Your task to perform on an android device: open app "PlayWell" Image 0: 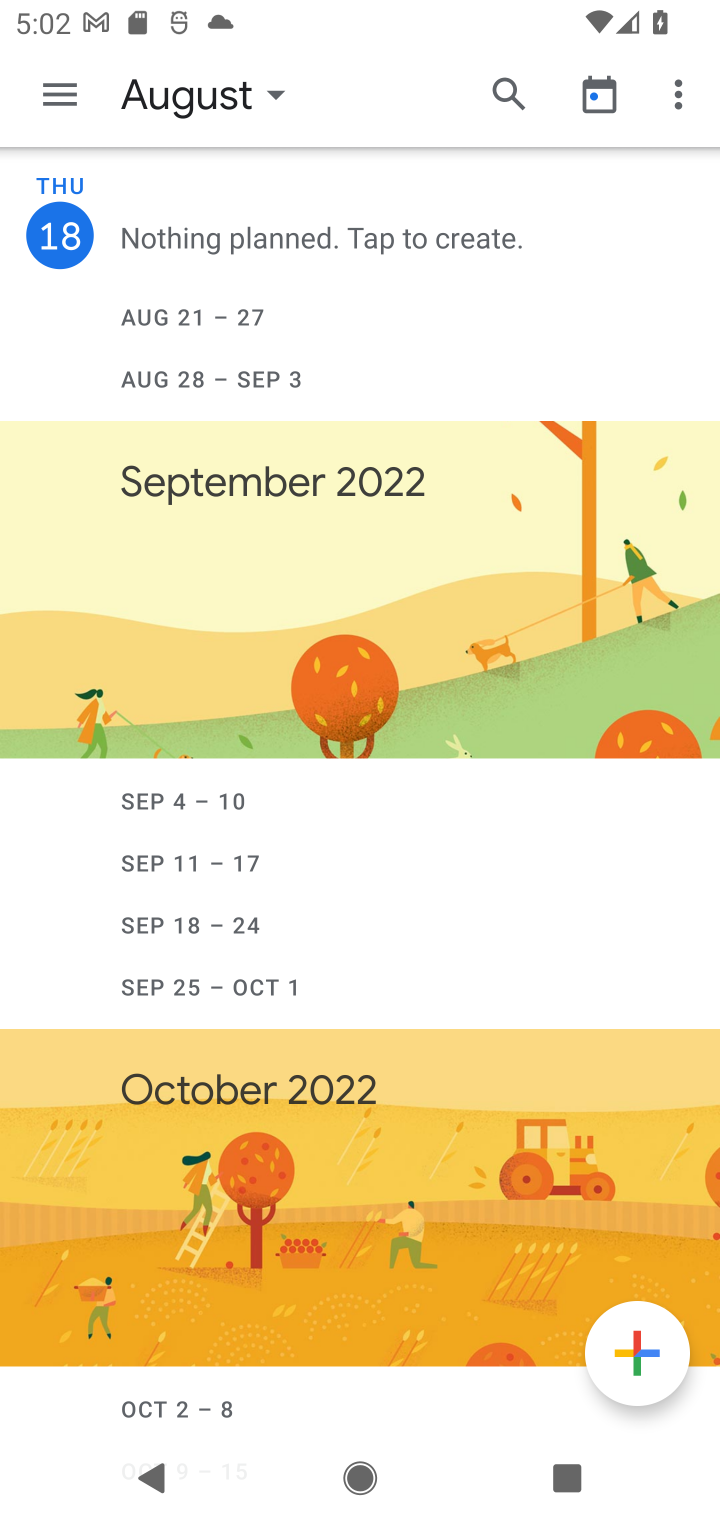
Step 0: press home button
Your task to perform on an android device: open app "PlayWell" Image 1: 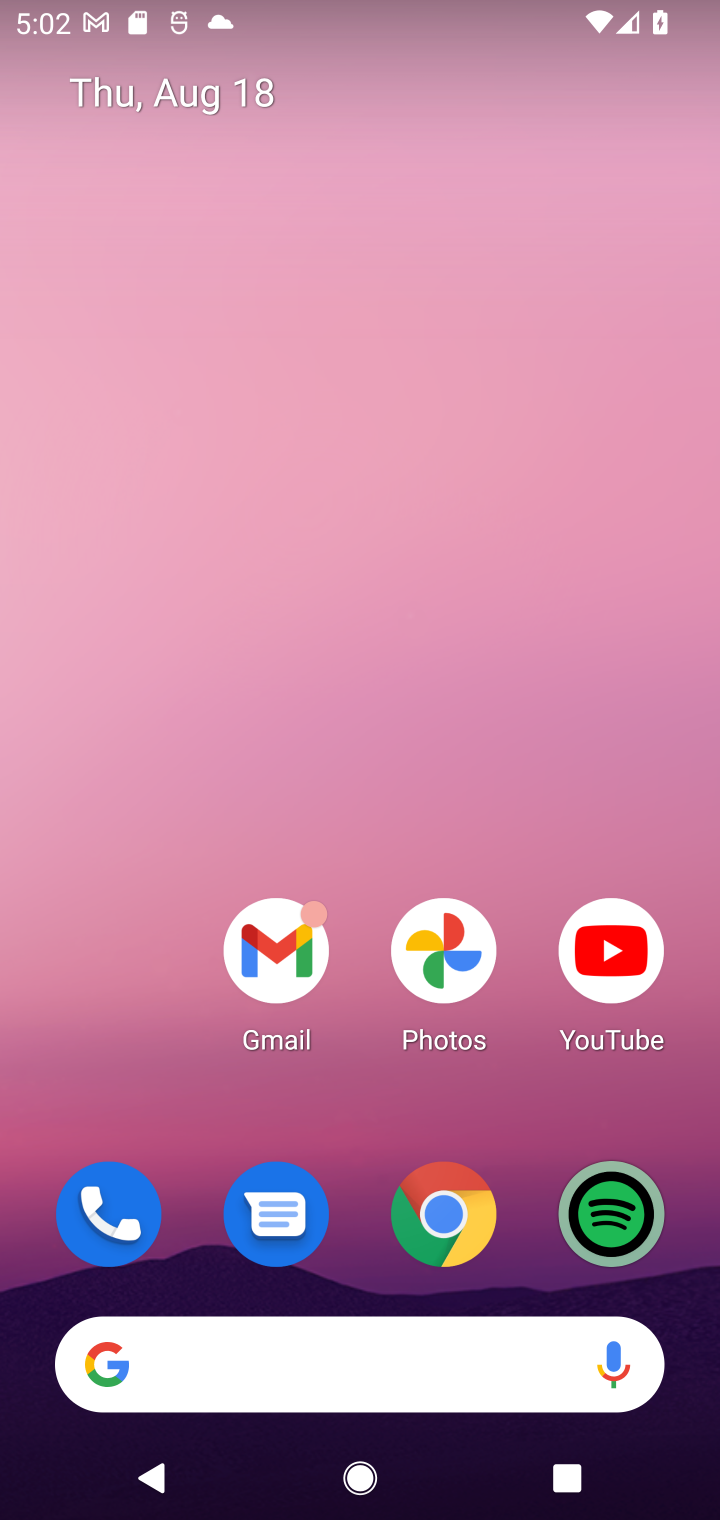
Step 1: drag from (345, 1219) to (383, 240)
Your task to perform on an android device: open app "PlayWell" Image 2: 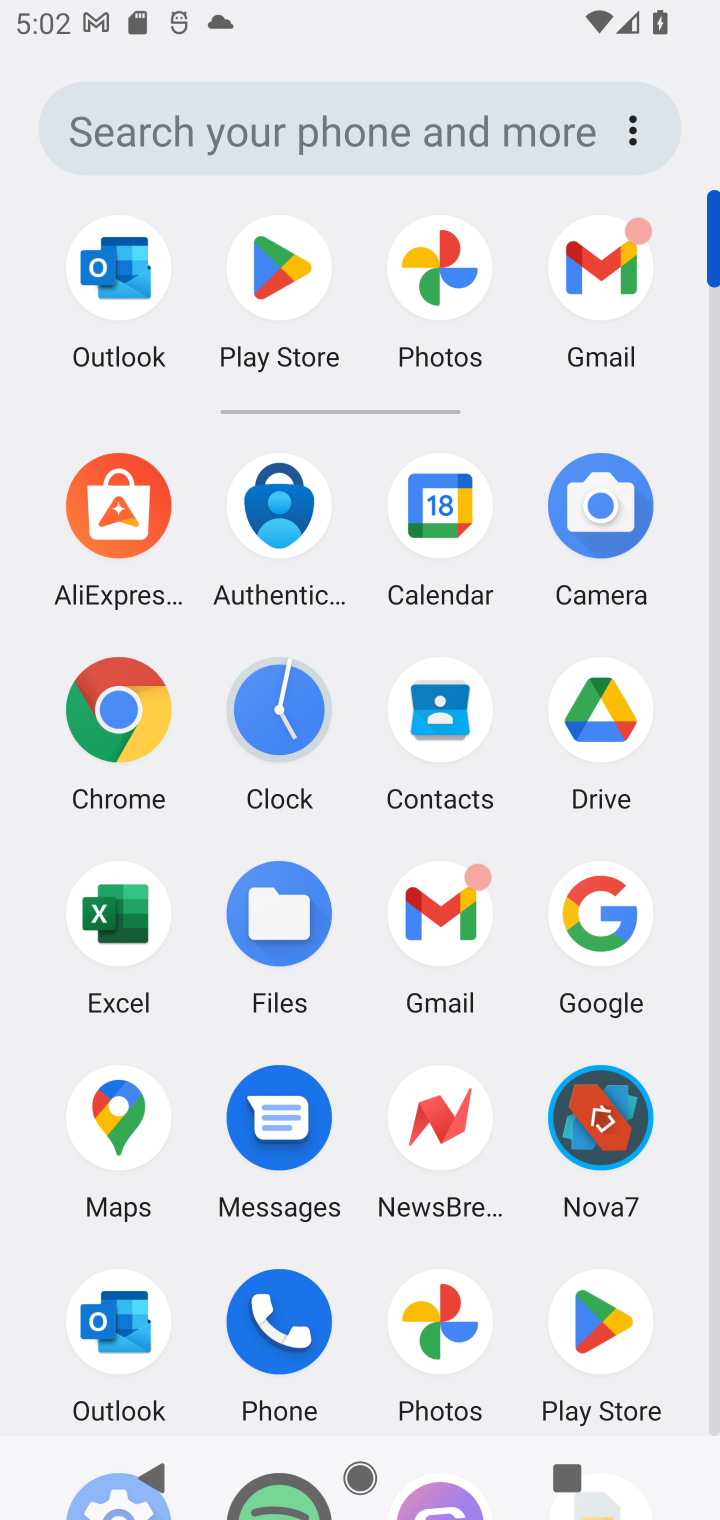
Step 2: click (281, 324)
Your task to perform on an android device: open app "PlayWell" Image 3: 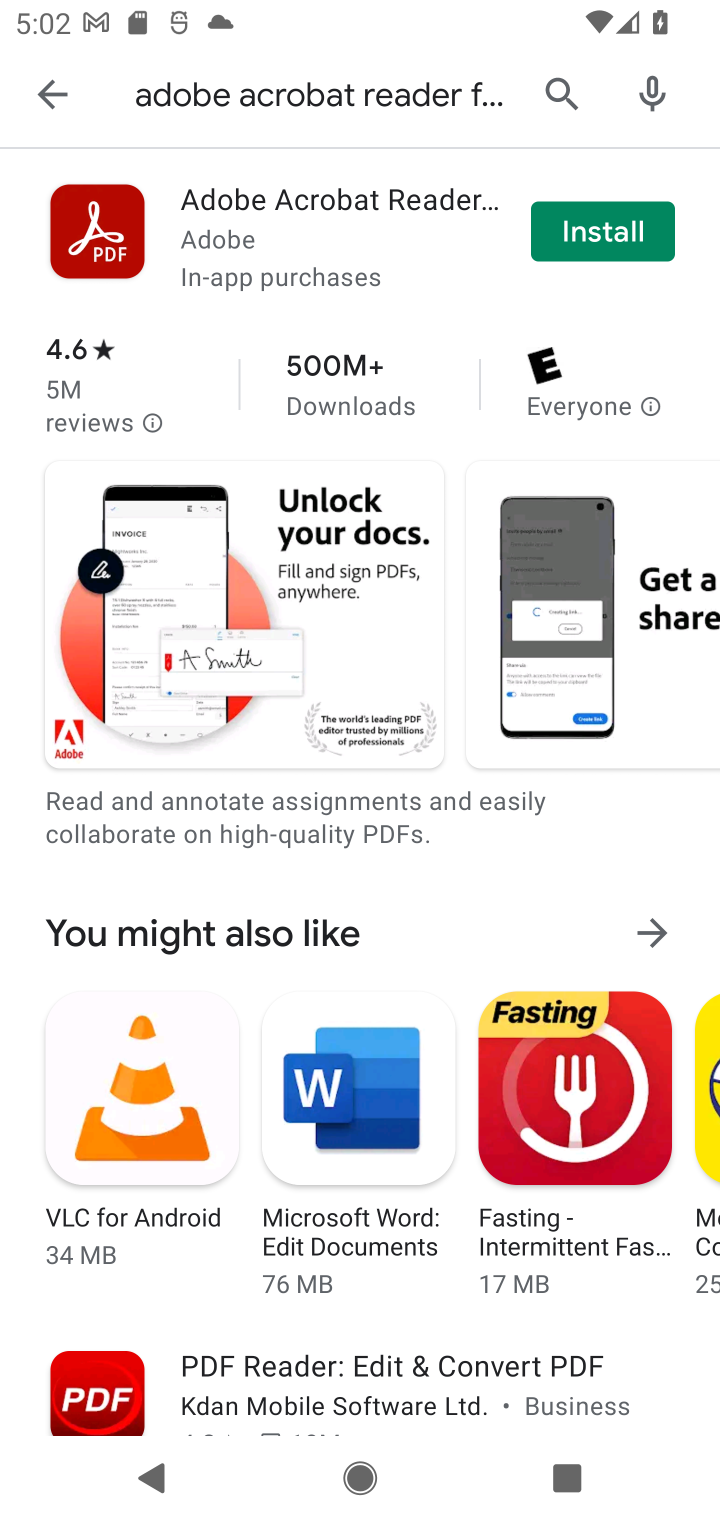
Step 3: click (272, 106)
Your task to perform on an android device: open app "PlayWell" Image 4: 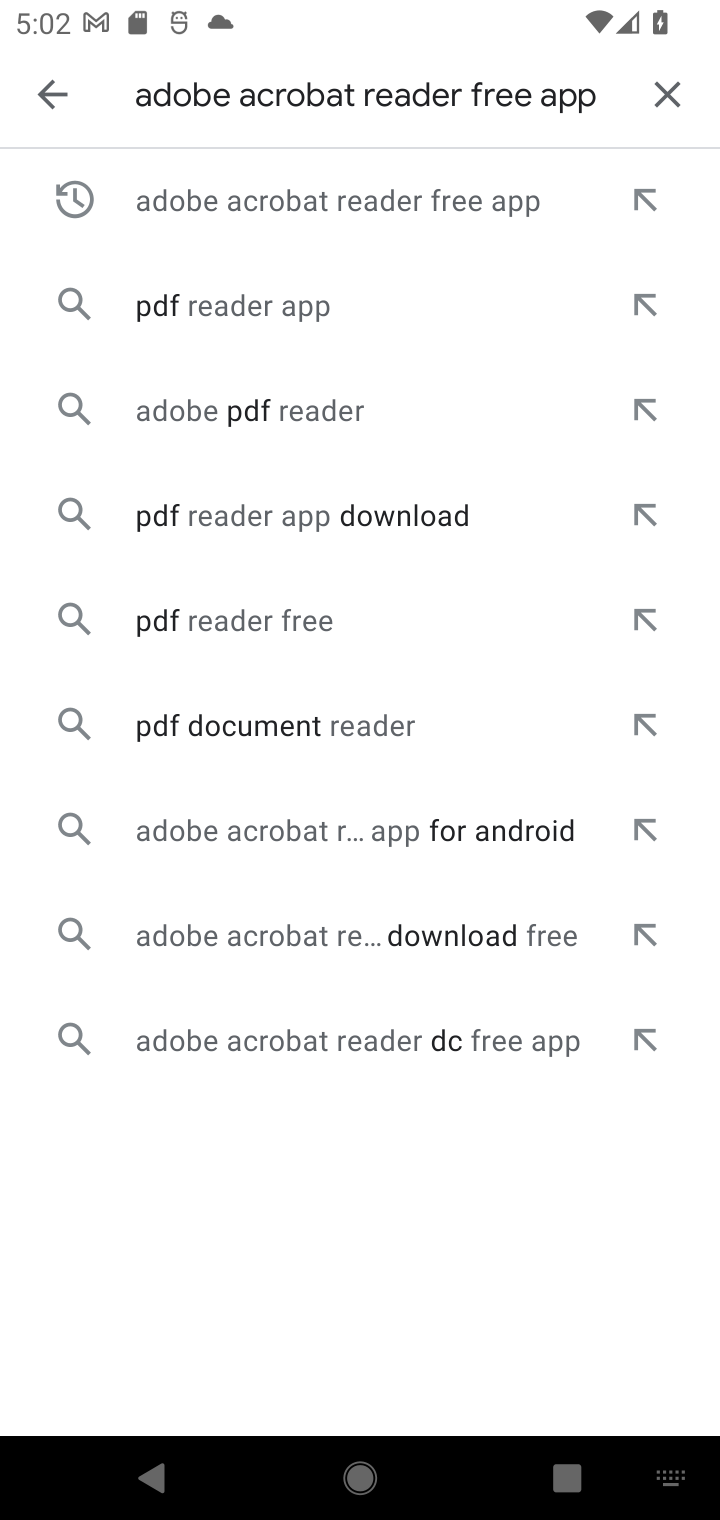
Step 4: click (677, 83)
Your task to perform on an android device: open app "PlayWell" Image 5: 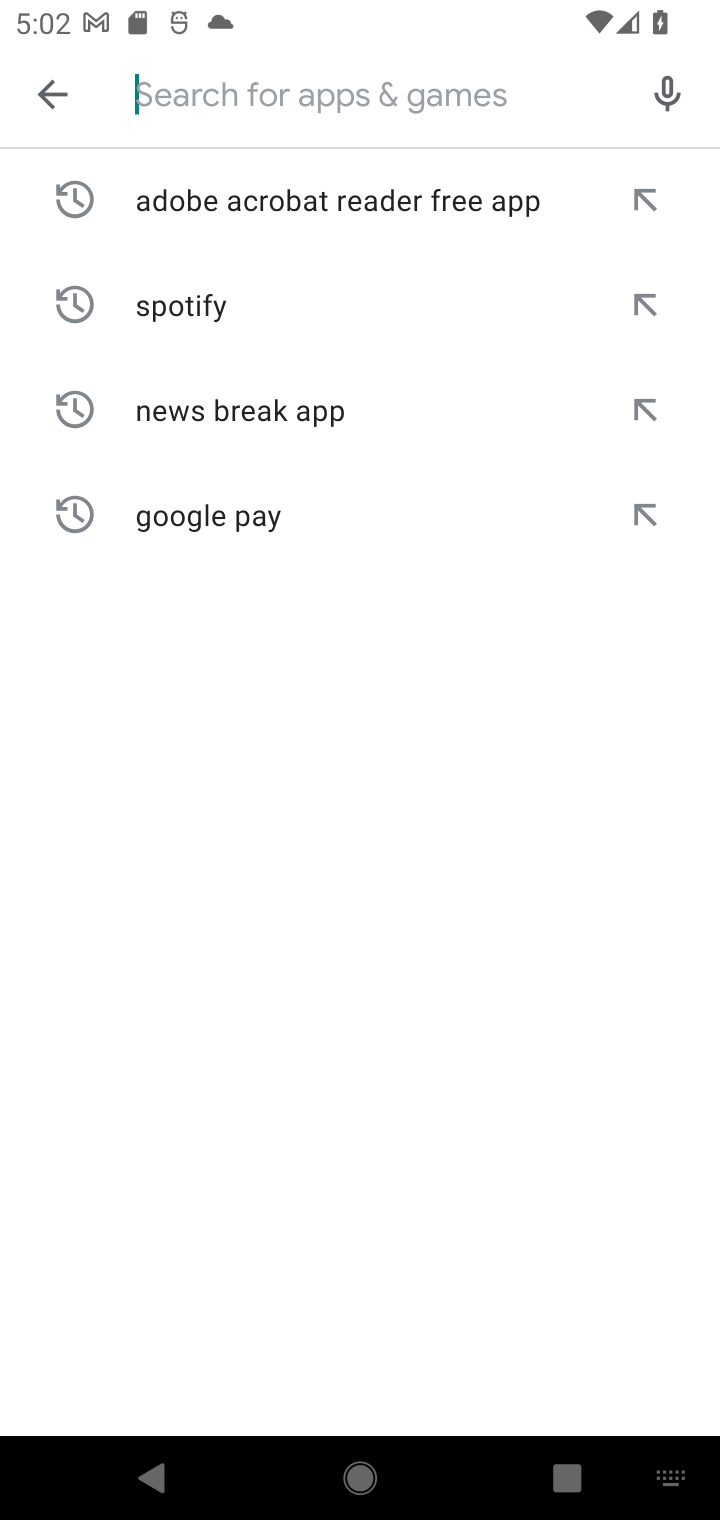
Step 5: type "playwell"
Your task to perform on an android device: open app "PlayWell" Image 6: 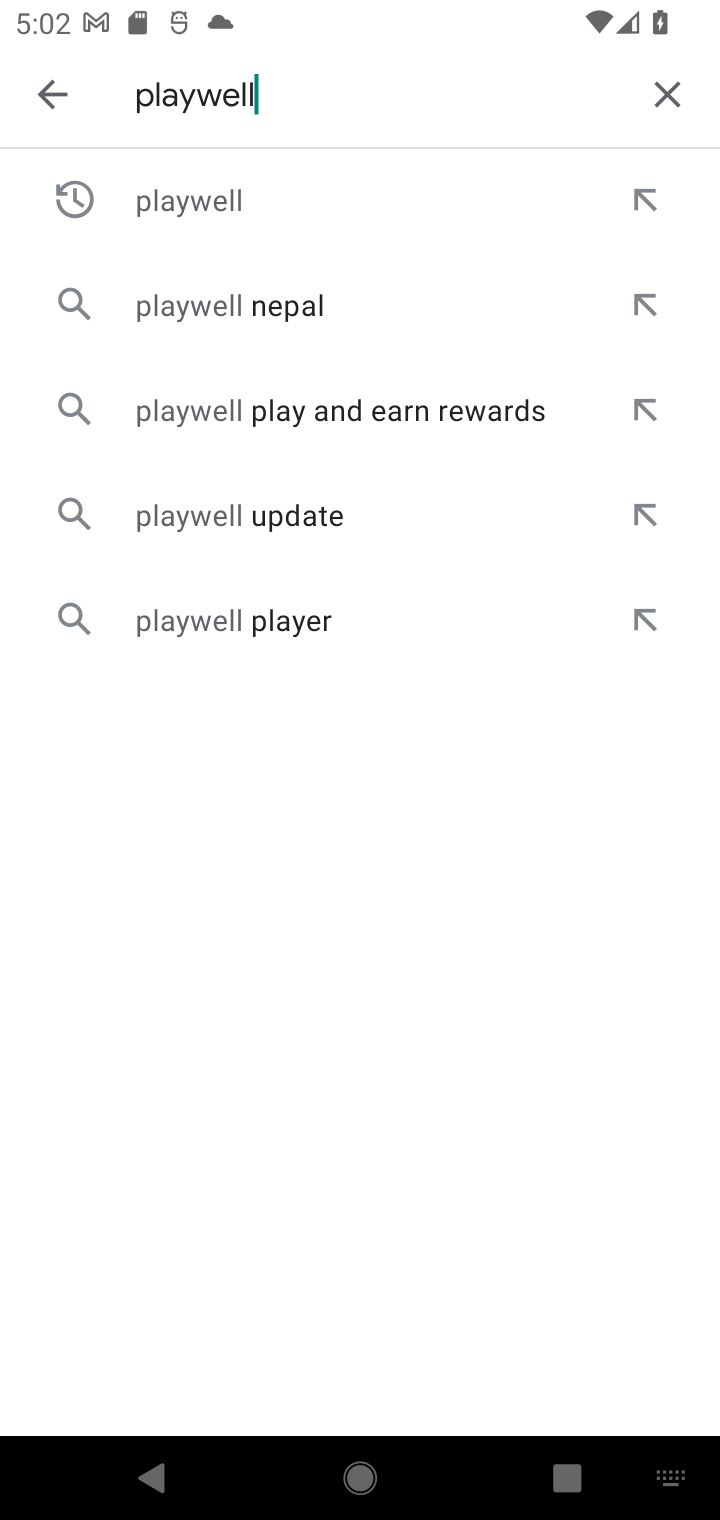
Step 6: click (200, 205)
Your task to perform on an android device: open app "PlayWell" Image 7: 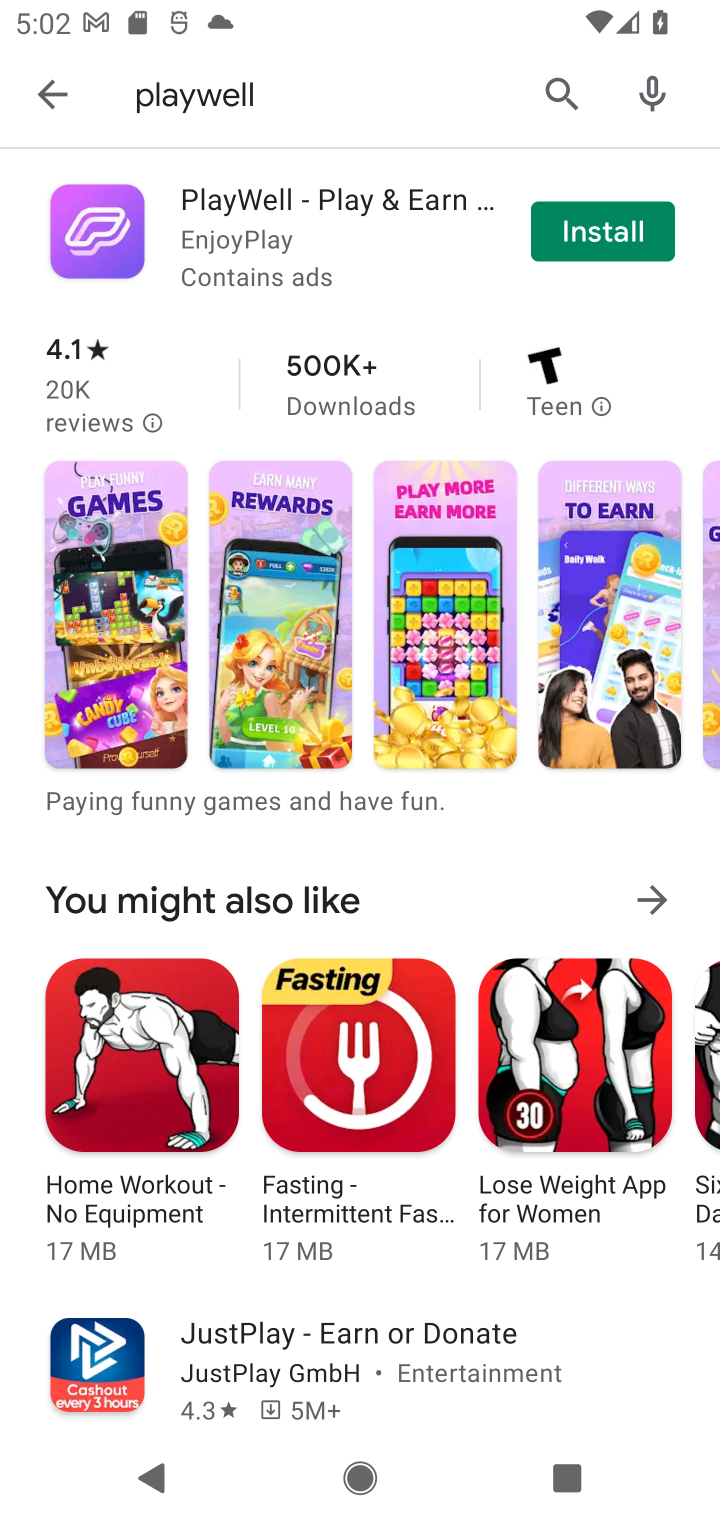
Step 7: task complete